Your task to perform on an android device: delete the emails in spam in the gmail app Image 0: 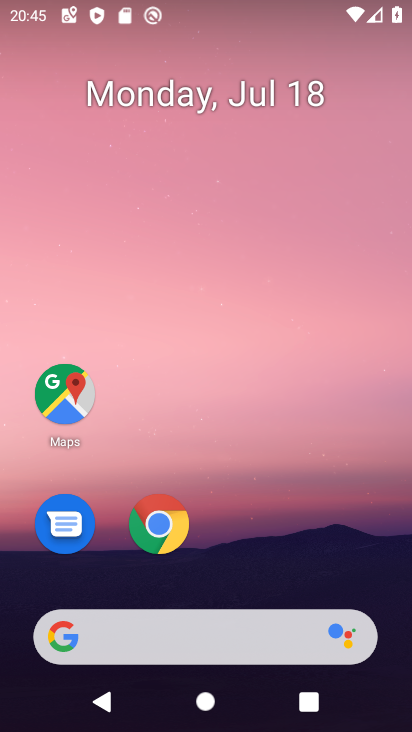
Step 0: drag from (252, 509) to (273, 91)
Your task to perform on an android device: delete the emails in spam in the gmail app Image 1: 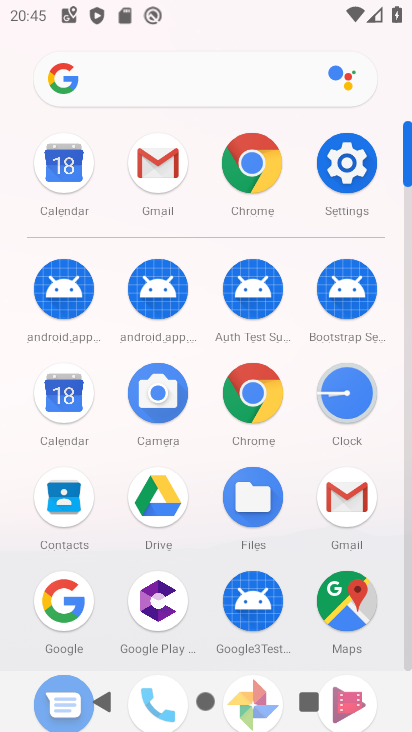
Step 1: click (166, 170)
Your task to perform on an android device: delete the emails in spam in the gmail app Image 2: 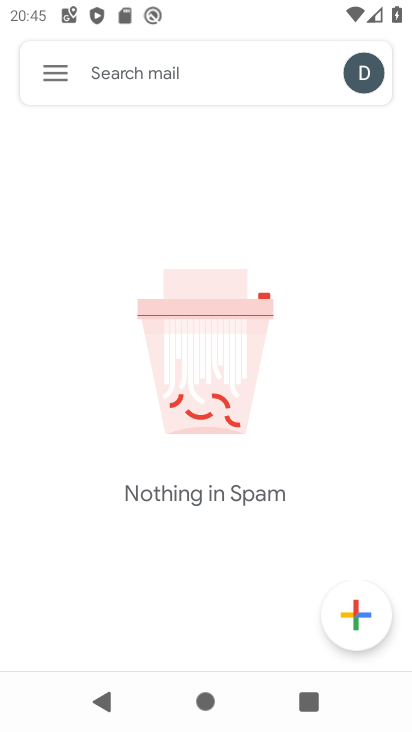
Step 2: click (50, 66)
Your task to perform on an android device: delete the emails in spam in the gmail app Image 3: 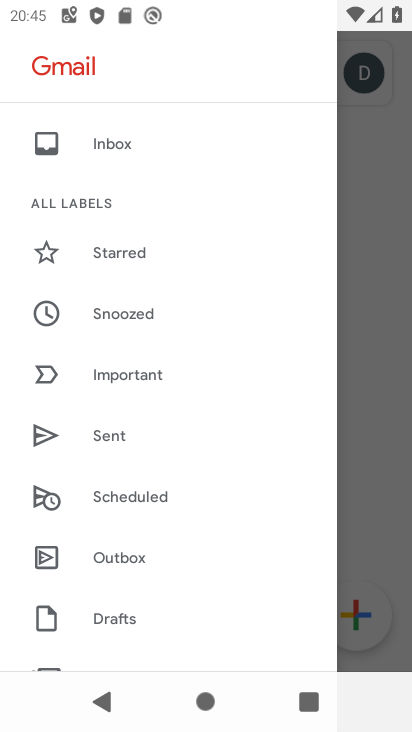
Step 3: drag from (179, 491) to (205, 134)
Your task to perform on an android device: delete the emails in spam in the gmail app Image 4: 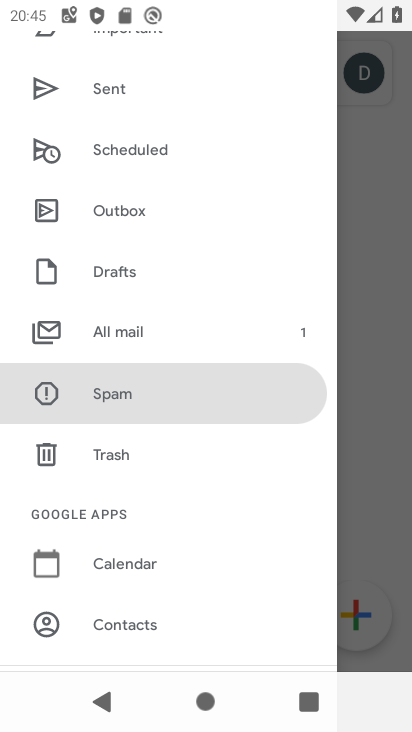
Step 4: click (123, 394)
Your task to perform on an android device: delete the emails in spam in the gmail app Image 5: 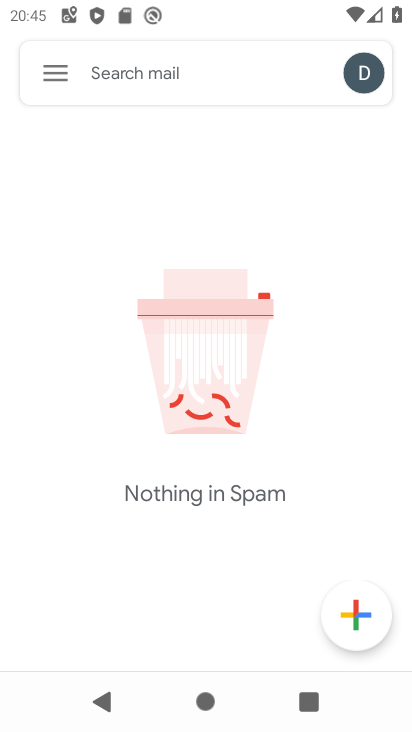
Step 5: task complete